Your task to perform on an android device: all mails in gmail Image 0: 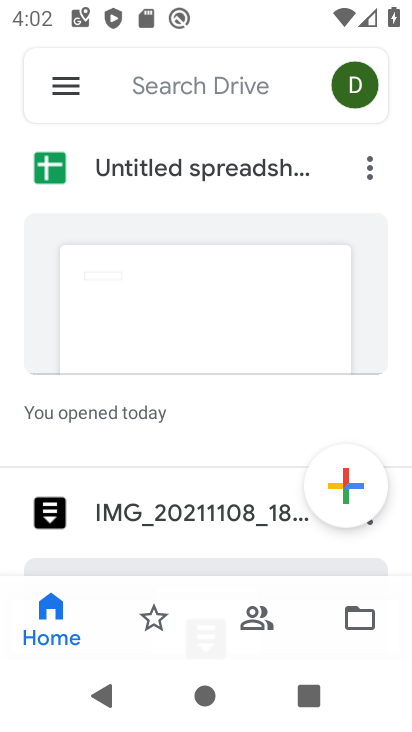
Step 0: press home button
Your task to perform on an android device: all mails in gmail Image 1: 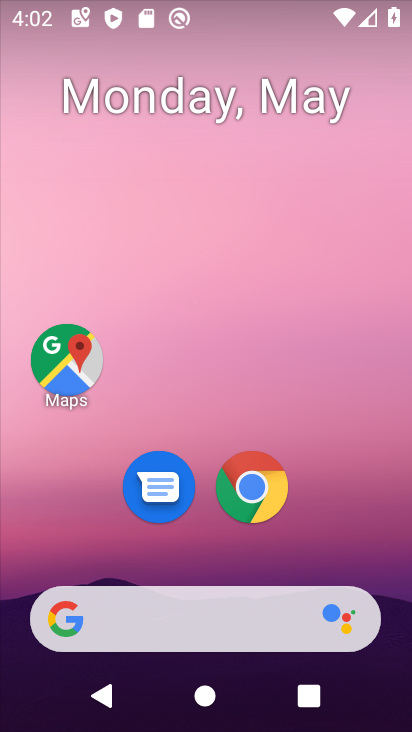
Step 1: drag from (174, 599) to (219, 238)
Your task to perform on an android device: all mails in gmail Image 2: 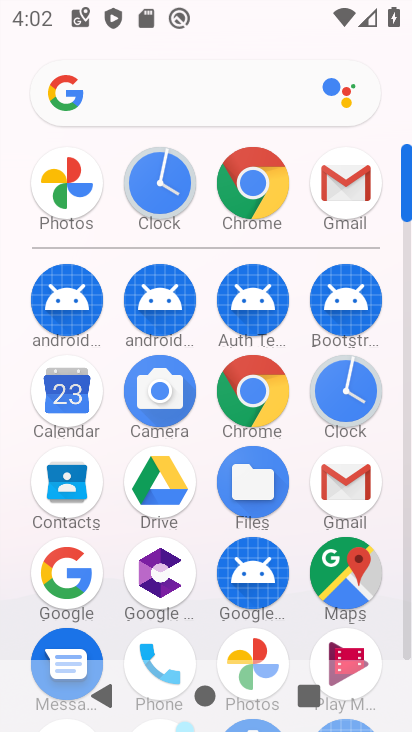
Step 2: click (357, 485)
Your task to perform on an android device: all mails in gmail Image 3: 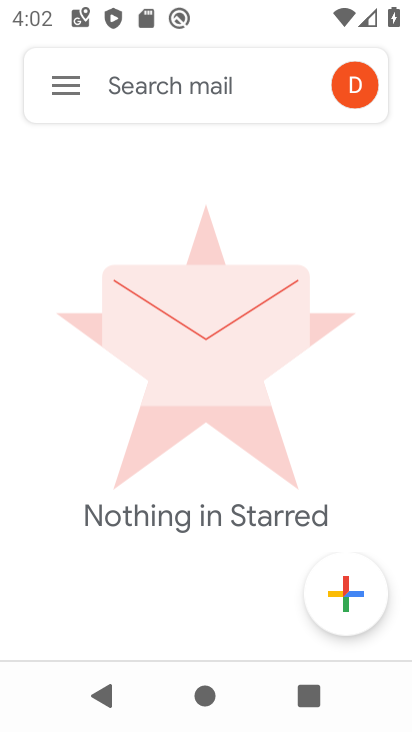
Step 3: click (65, 92)
Your task to perform on an android device: all mails in gmail Image 4: 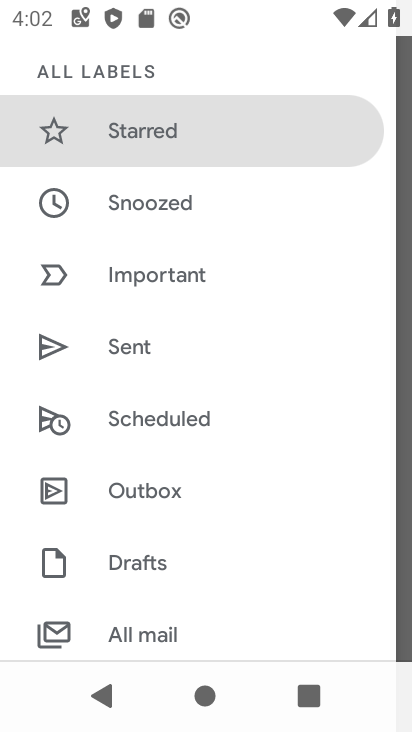
Step 4: drag from (141, 641) to (158, 294)
Your task to perform on an android device: all mails in gmail Image 5: 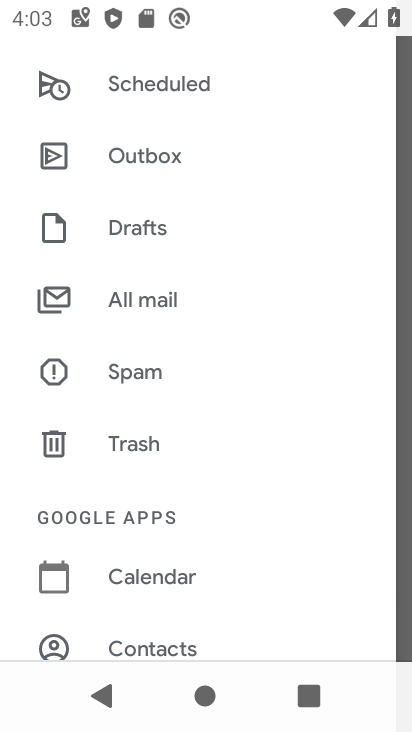
Step 5: click (146, 293)
Your task to perform on an android device: all mails in gmail Image 6: 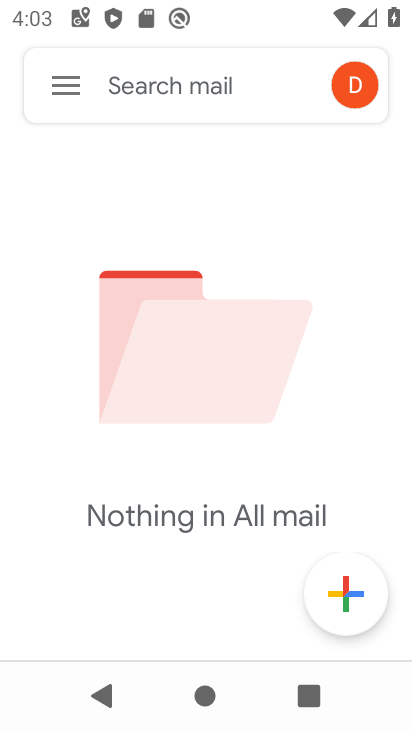
Step 6: task complete